Your task to perform on an android device: Clear the shopping cart on costco. Add logitech g933 to the cart on costco, then select checkout. Image 0: 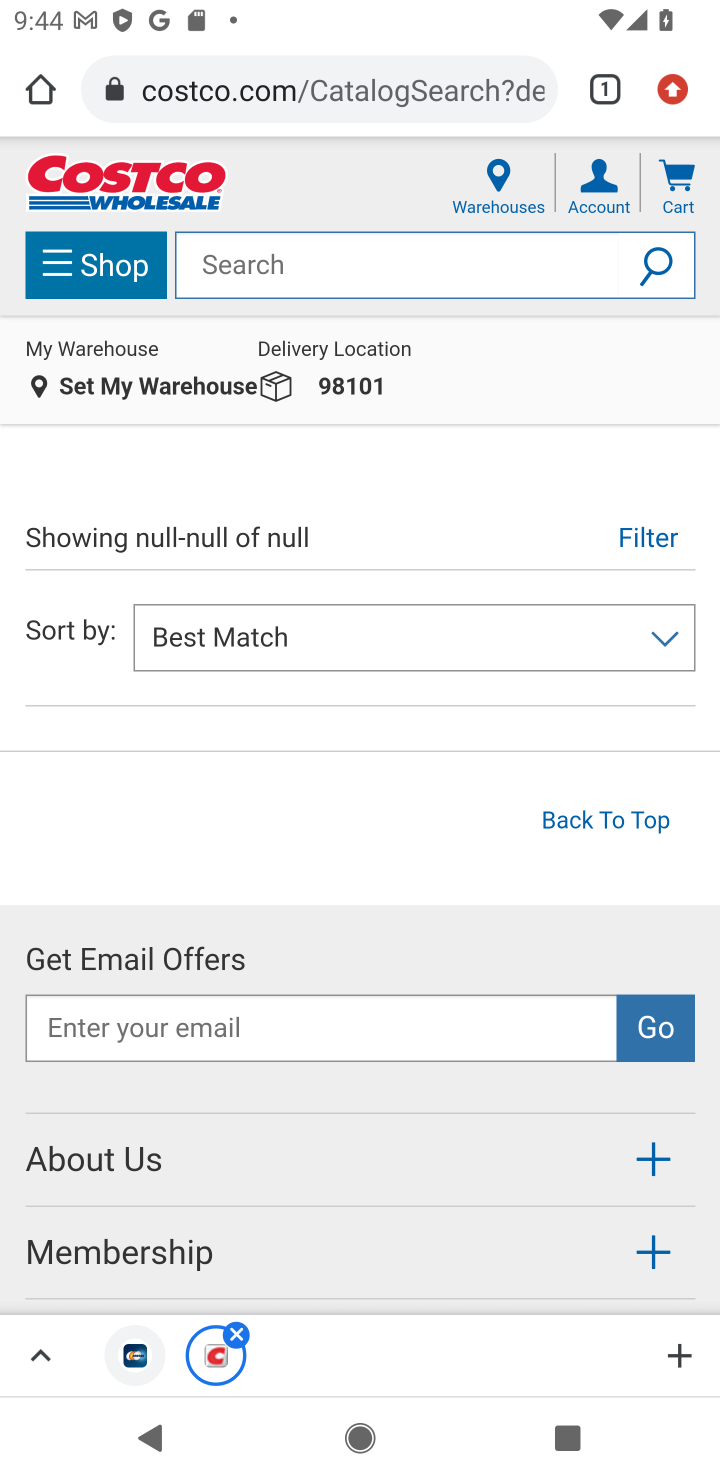
Step 0: click (334, 75)
Your task to perform on an android device: Clear the shopping cart on costco. Add logitech g933 to the cart on costco, then select checkout. Image 1: 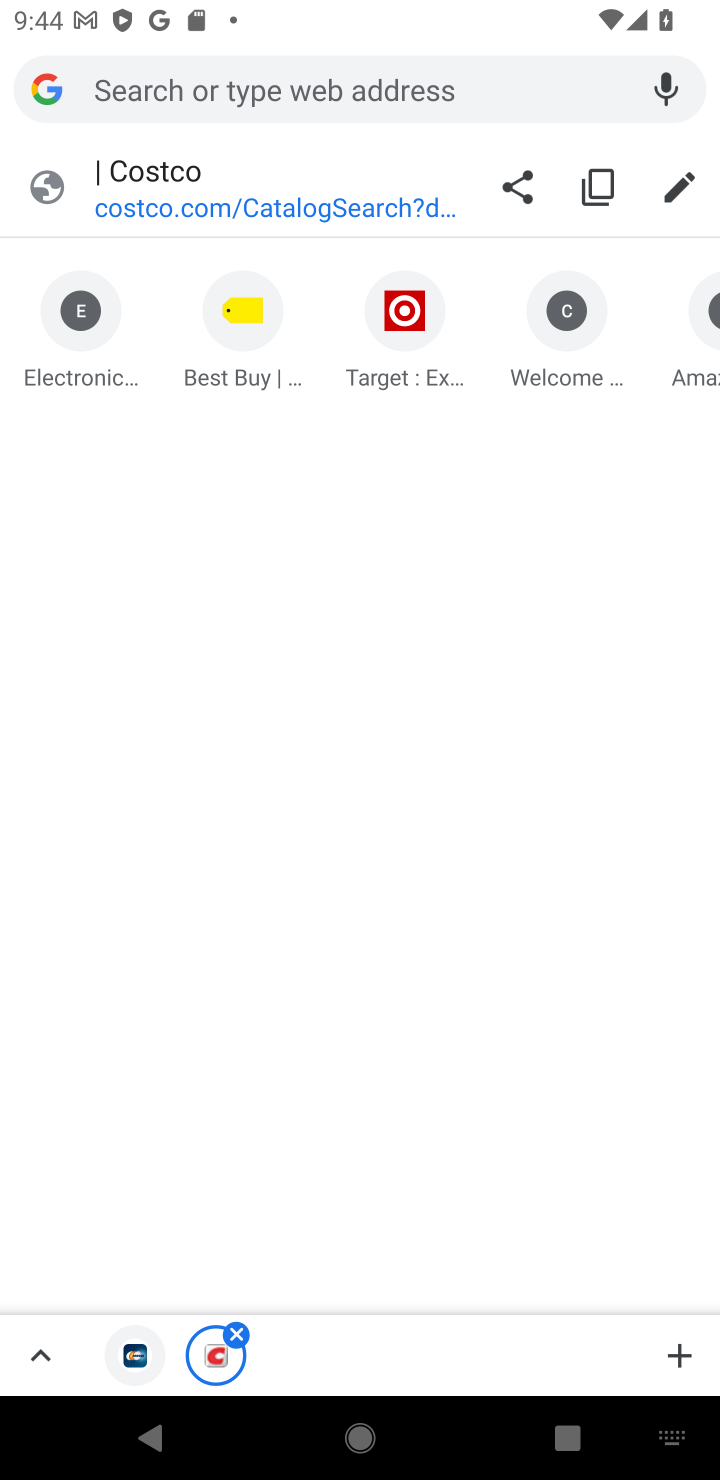
Step 1: type "costco"
Your task to perform on an android device: Clear the shopping cart on costco. Add logitech g933 to the cart on costco, then select checkout. Image 2: 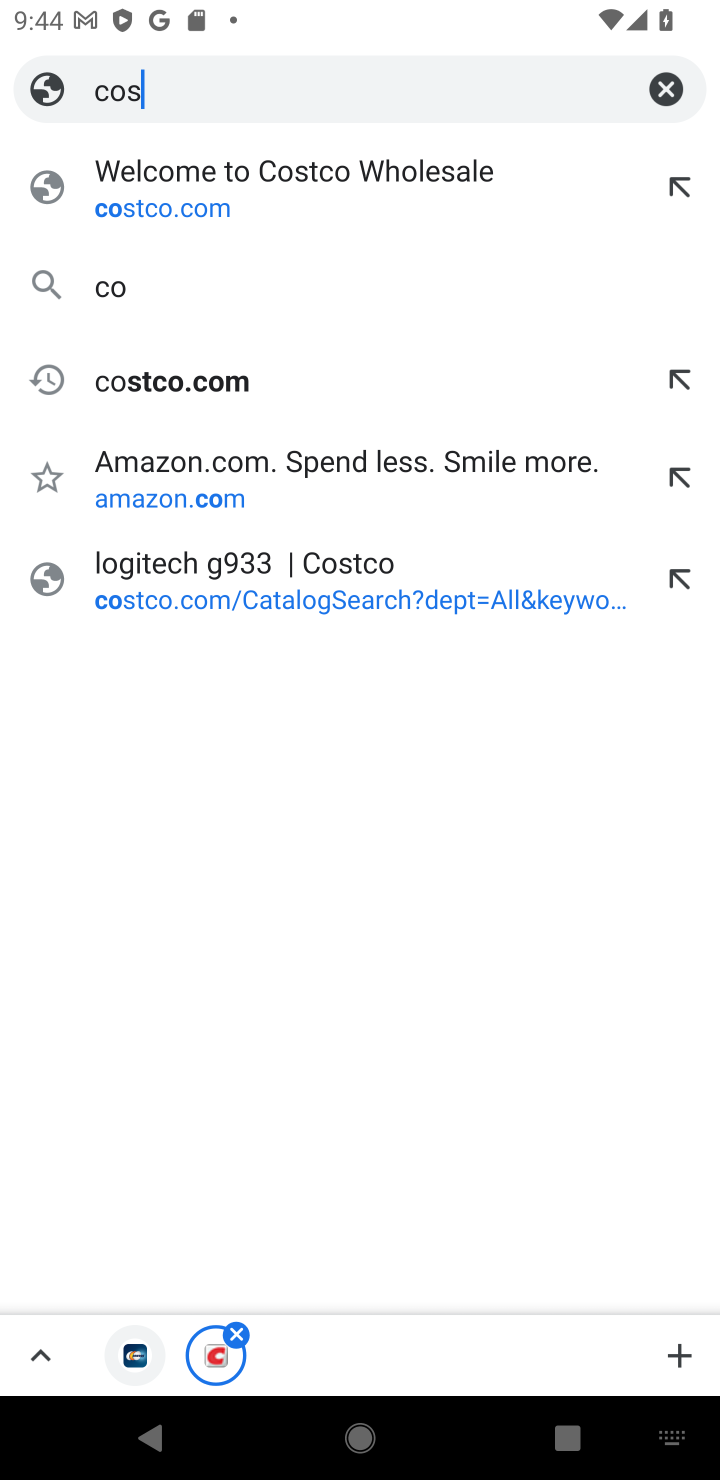
Step 2: press enter
Your task to perform on an android device: Clear the shopping cart on costco. Add logitech g933 to the cart on costco, then select checkout. Image 3: 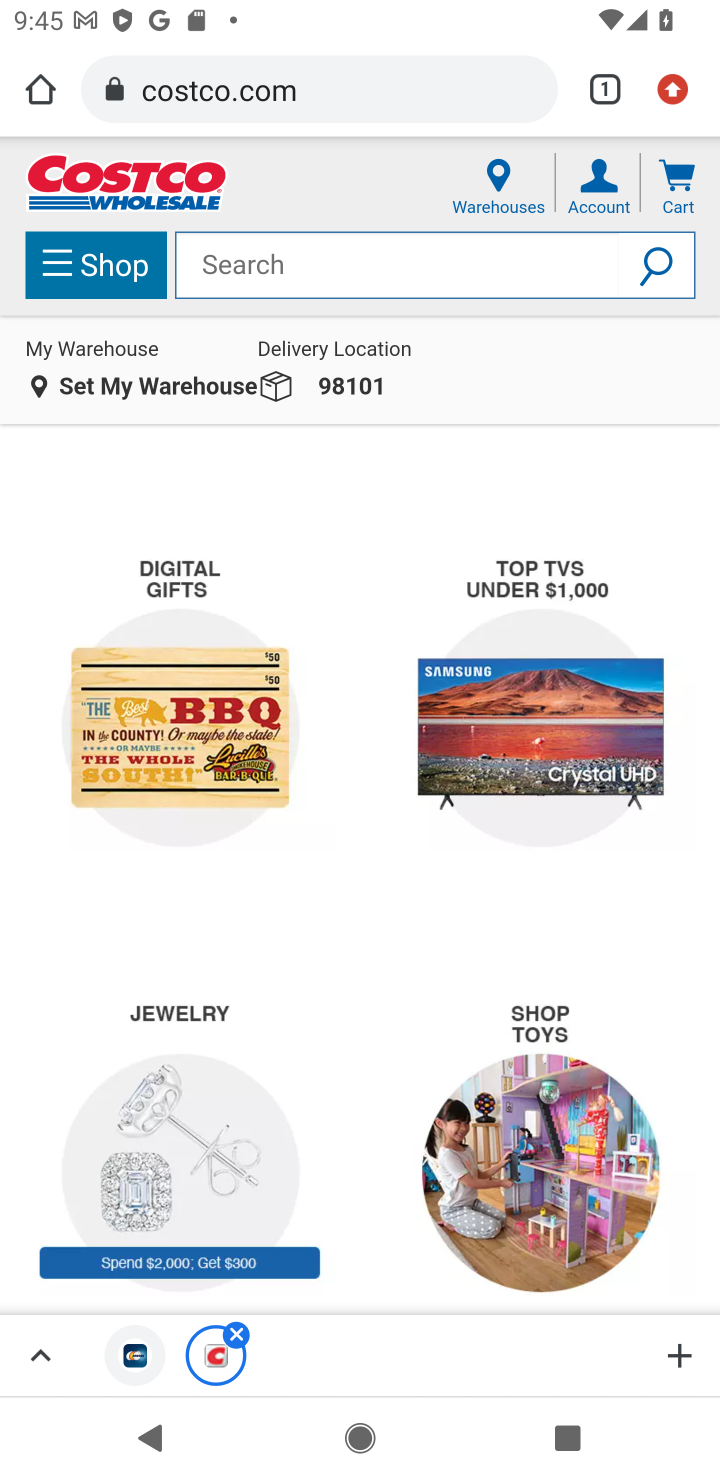
Step 3: click (675, 179)
Your task to perform on an android device: Clear the shopping cart on costco. Add logitech g933 to the cart on costco, then select checkout. Image 4: 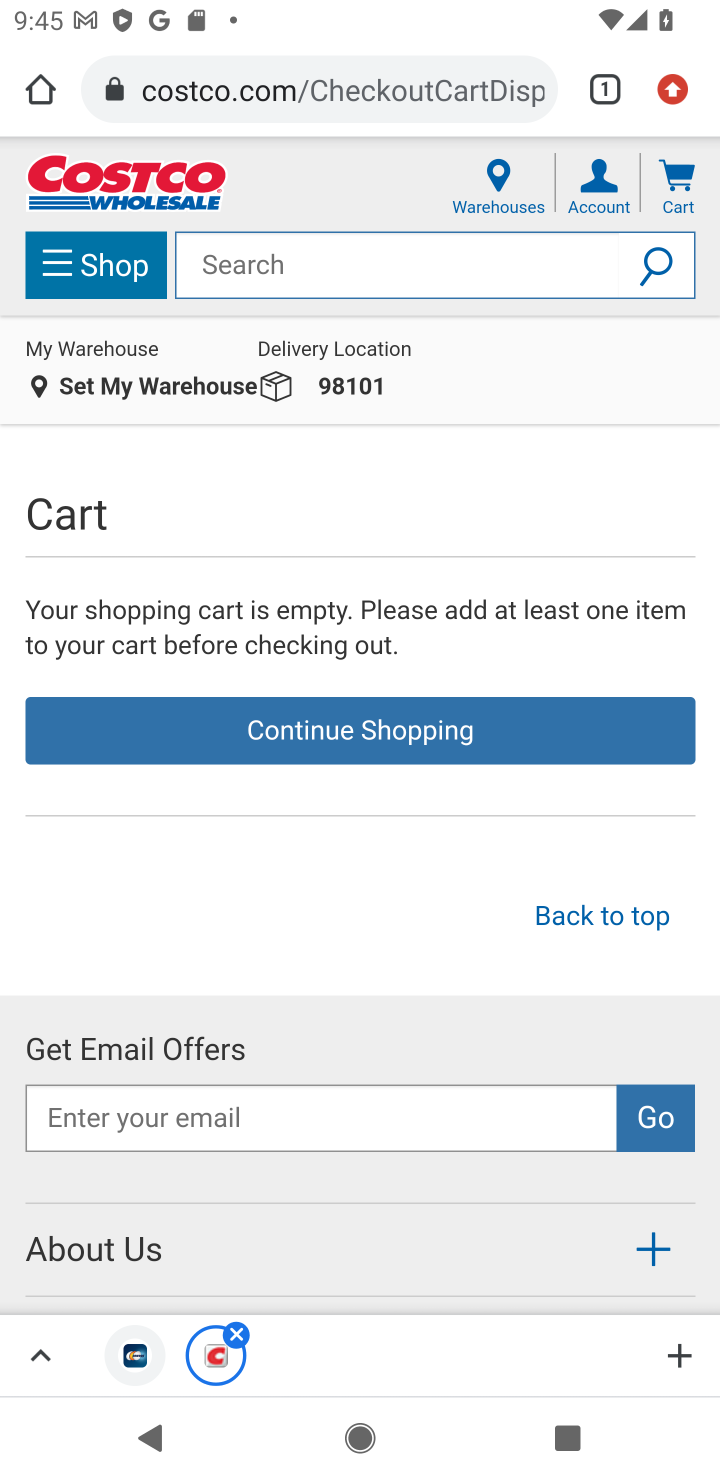
Step 4: click (495, 270)
Your task to perform on an android device: Clear the shopping cart on costco. Add logitech g933 to the cart on costco, then select checkout. Image 5: 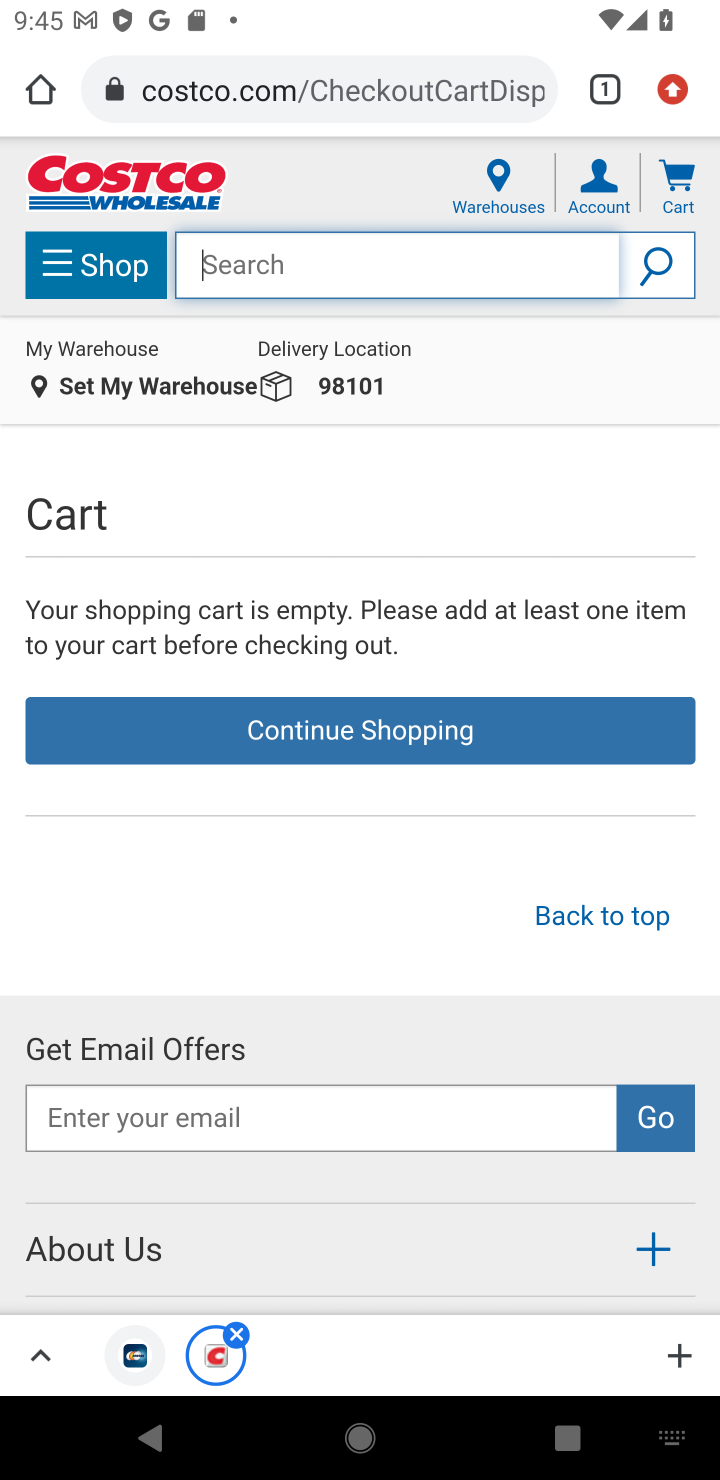
Step 5: press enter
Your task to perform on an android device: Clear the shopping cart on costco. Add logitech g933 to the cart on costco, then select checkout. Image 6: 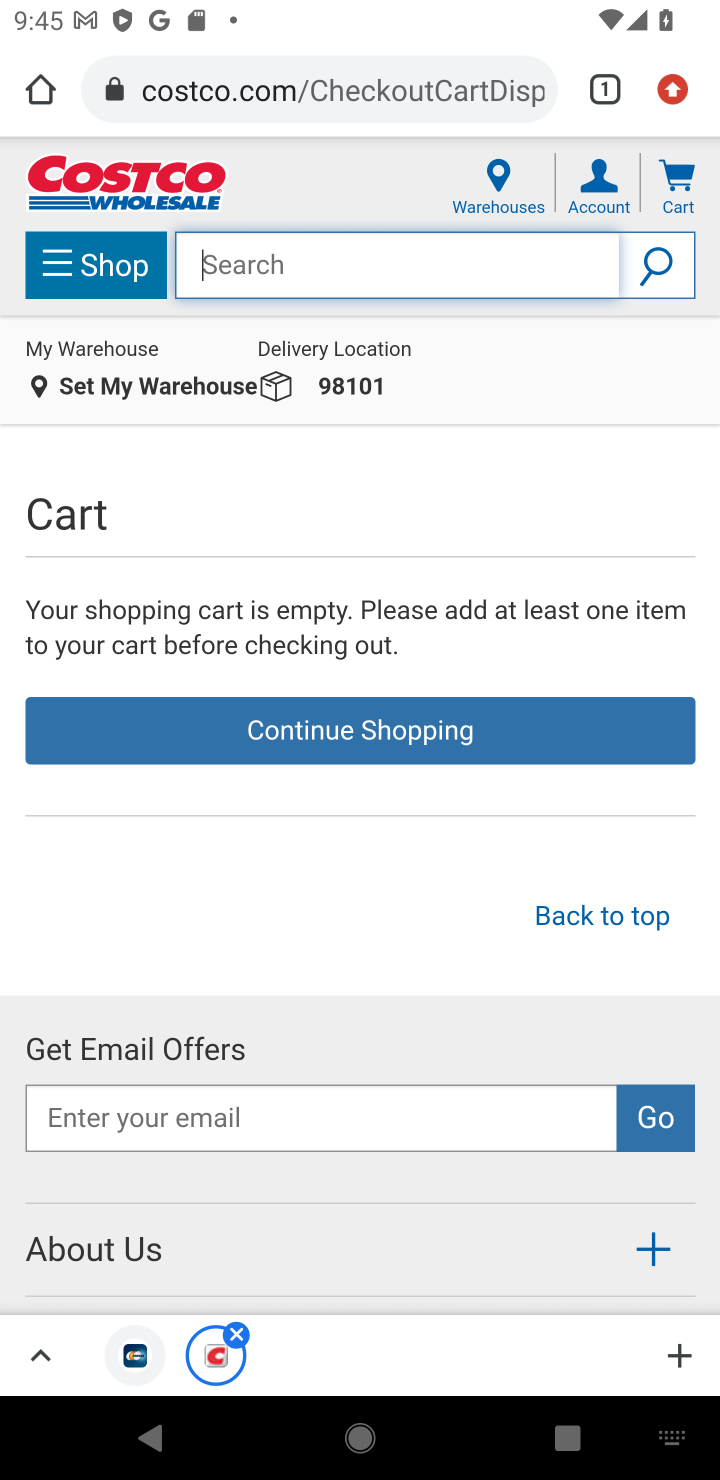
Step 6: type "logitech g933"
Your task to perform on an android device: Clear the shopping cart on costco. Add logitech g933 to the cart on costco, then select checkout. Image 7: 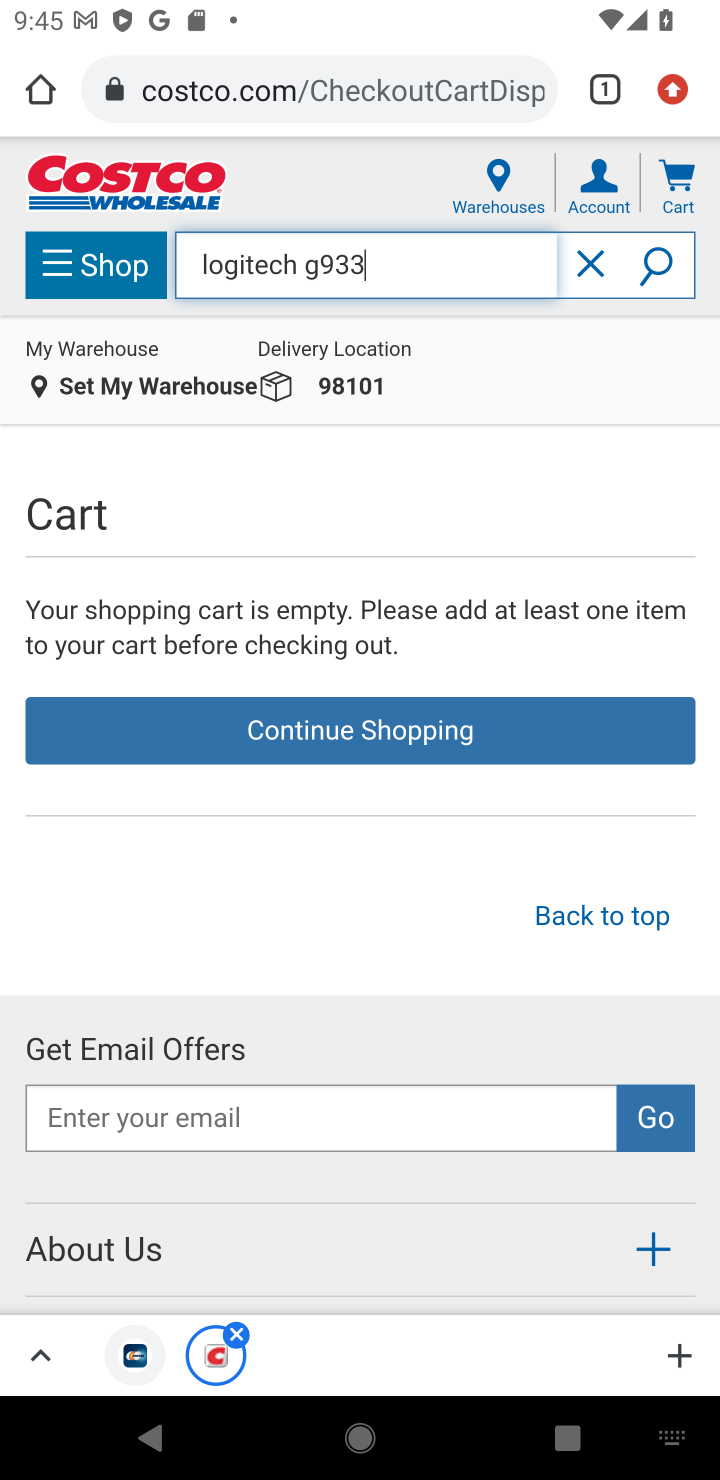
Step 7: click (660, 255)
Your task to perform on an android device: Clear the shopping cart on costco. Add logitech g933 to the cart on costco, then select checkout. Image 8: 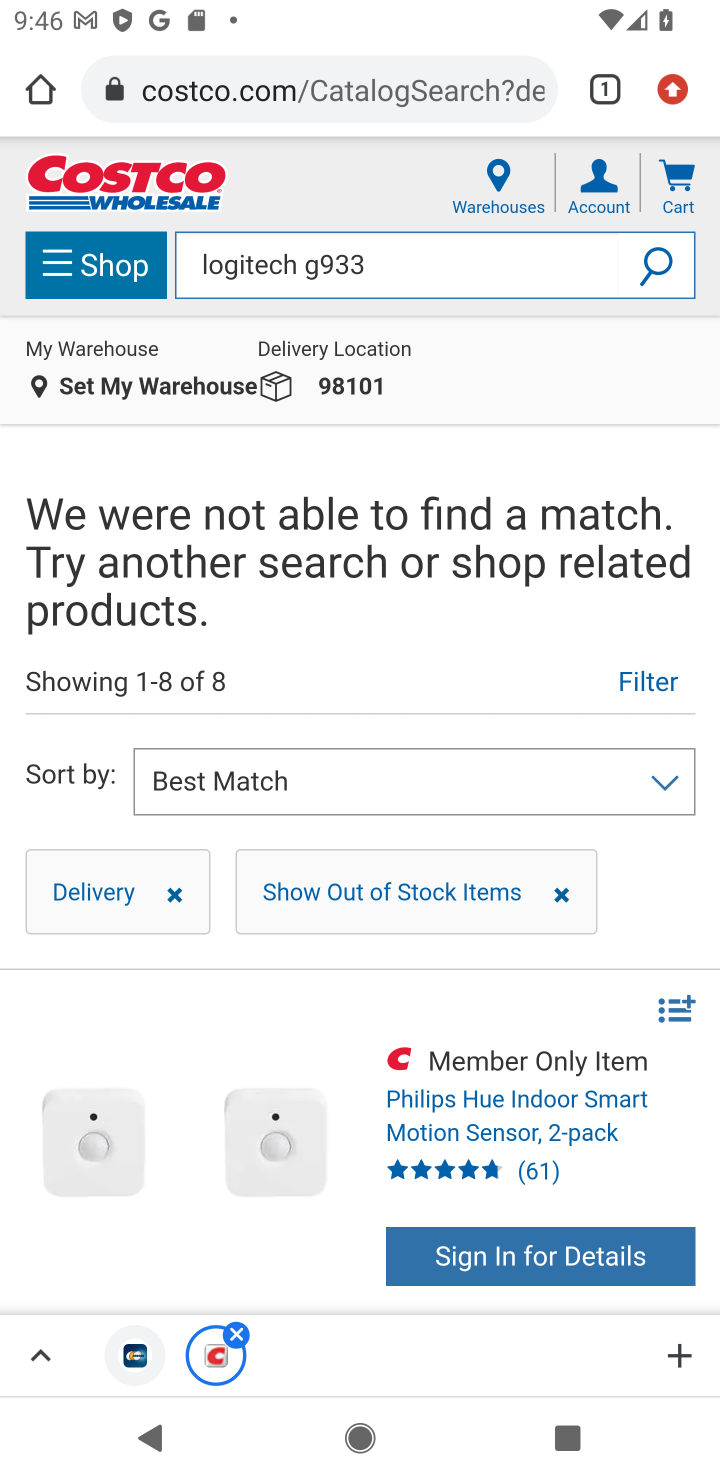
Step 8: task complete